Your task to perform on an android device: open a new tab in the chrome app Image 0: 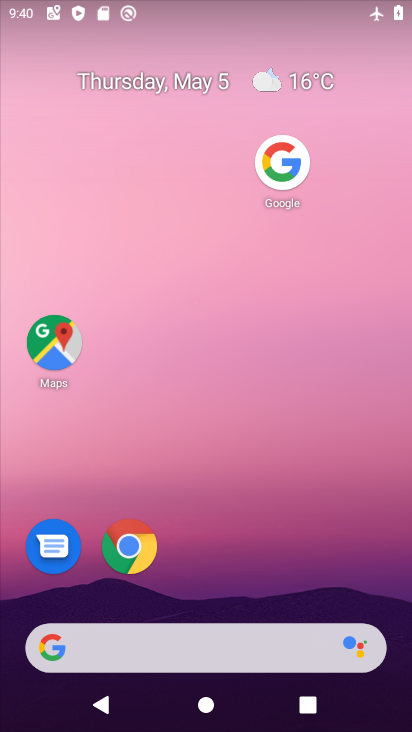
Step 0: drag from (157, 654) to (337, 85)
Your task to perform on an android device: open a new tab in the chrome app Image 1: 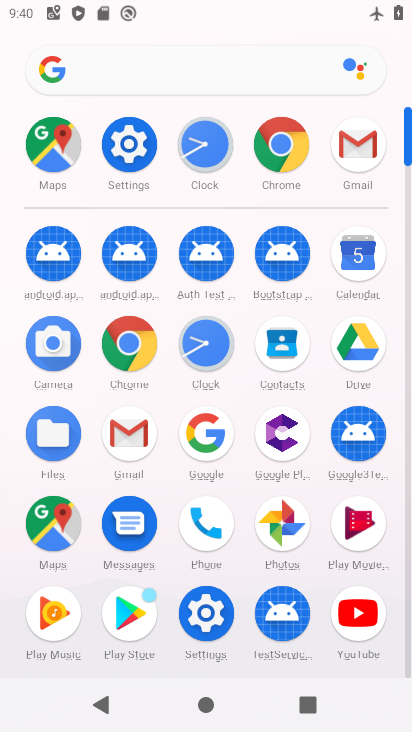
Step 1: click (284, 150)
Your task to perform on an android device: open a new tab in the chrome app Image 2: 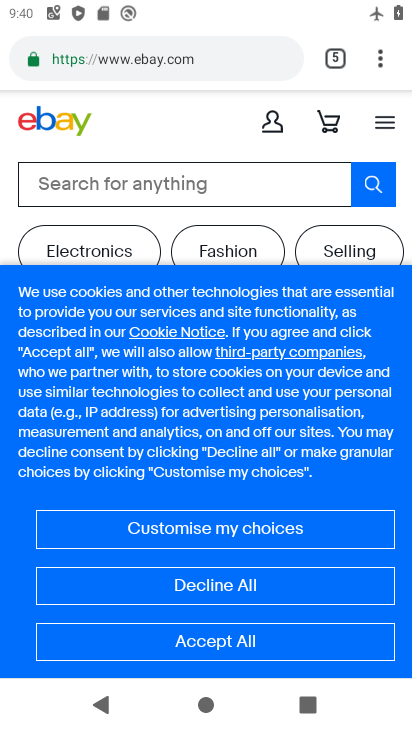
Step 2: drag from (377, 61) to (156, 114)
Your task to perform on an android device: open a new tab in the chrome app Image 3: 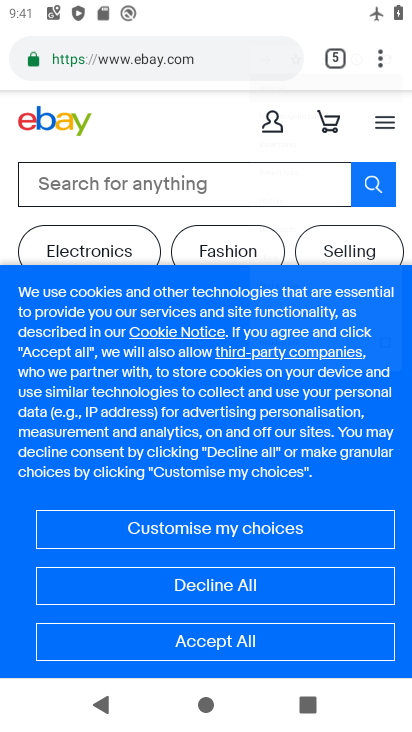
Step 3: click (156, 114)
Your task to perform on an android device: open a new tab in the chrome app Image 4: 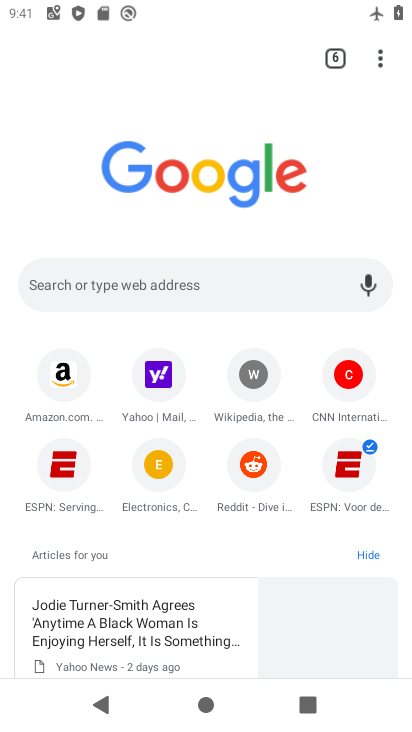
Step 4: task complete